Your task to perform on an android device: Show me recent news Image 0: 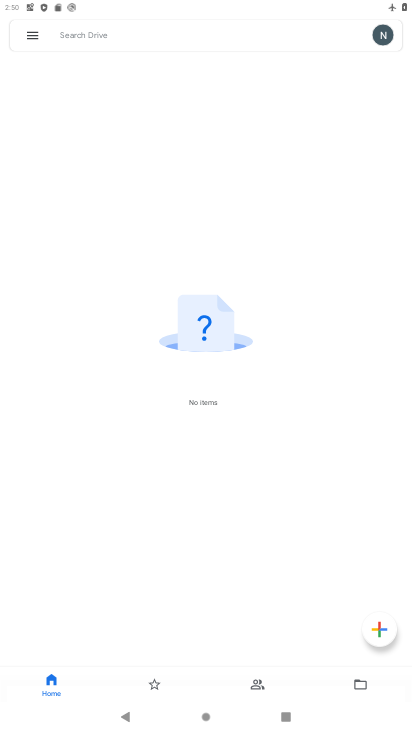
Step 0: press home button
Your task to perform on an android device: Show me recent news Image 1: 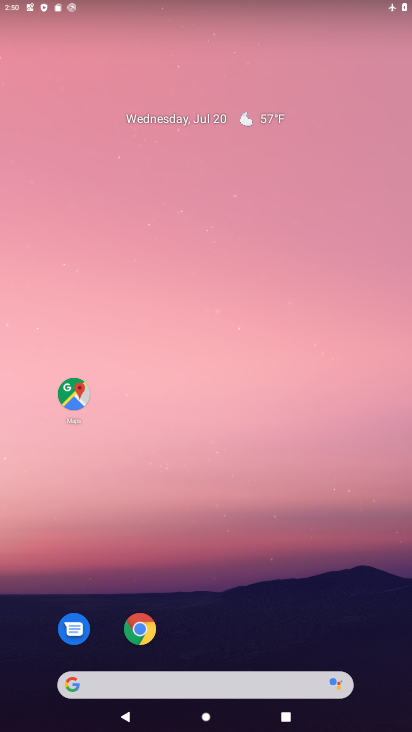
Step 1: drag from (231, 614) to (237, 180)
Your task to perform on an android device: Show me recent news Image 2: 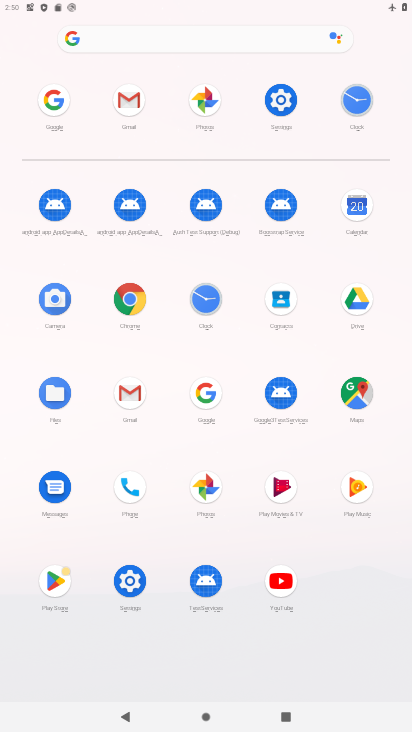
Step 2: click (218, 401)
Your task to perform on an android device: Show me recent news Image 3: 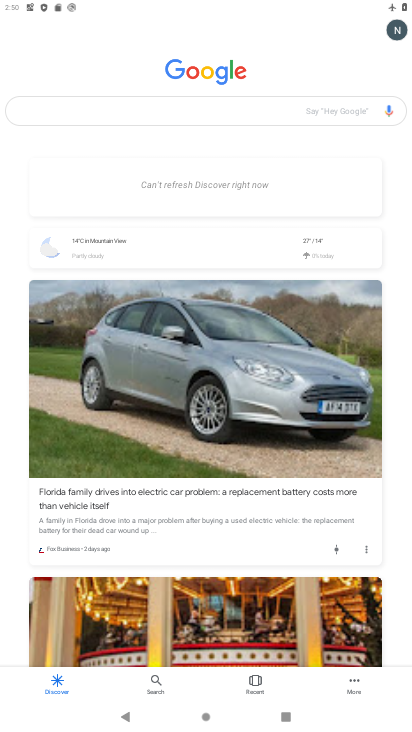
Step 3: click (169, 114)
Your task to perform on an android device: Show me recent news Image 4: 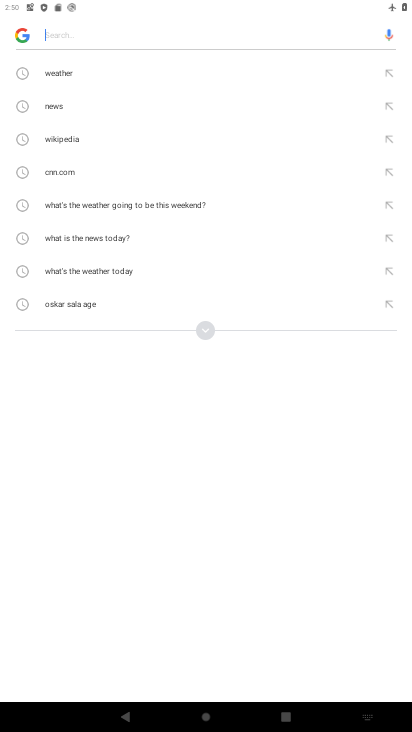
Step 4: click (49, 111)
Your task to perform on an android device: Show me recent news Image 5: 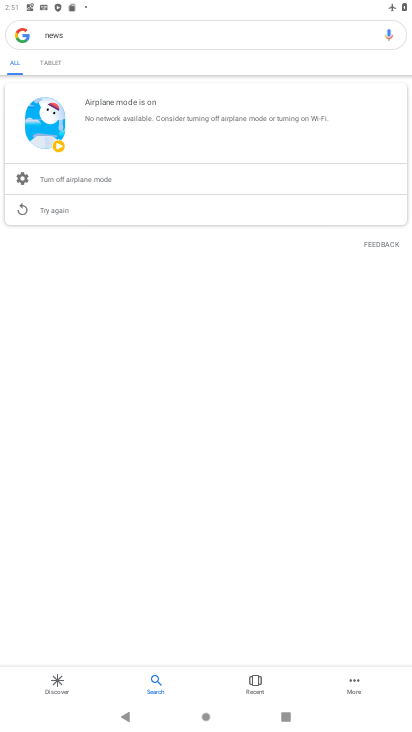
Step 5: task complete